Your task to perform on an android device: toggle wifi Image 0: 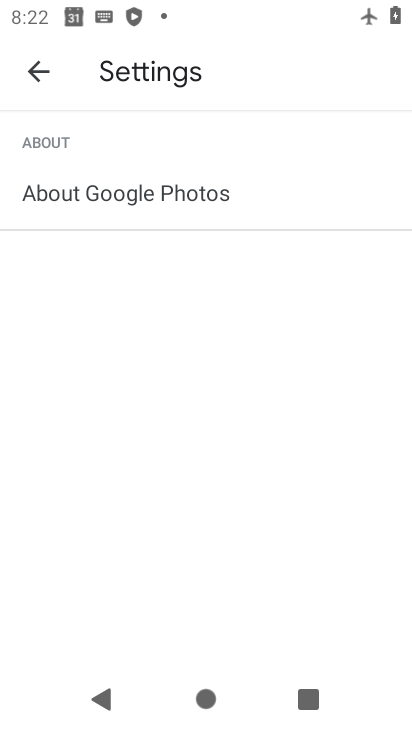
Step 0: press home button
Your task to perform on an android device: toggle wifi Image 1: 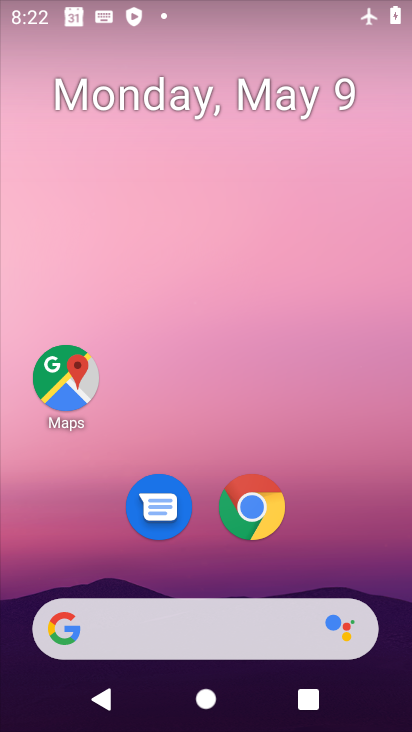
Step 1: drag from (218, 576) to (223, 2)
Your task to perform on an android device: toggle wifi Image 2: 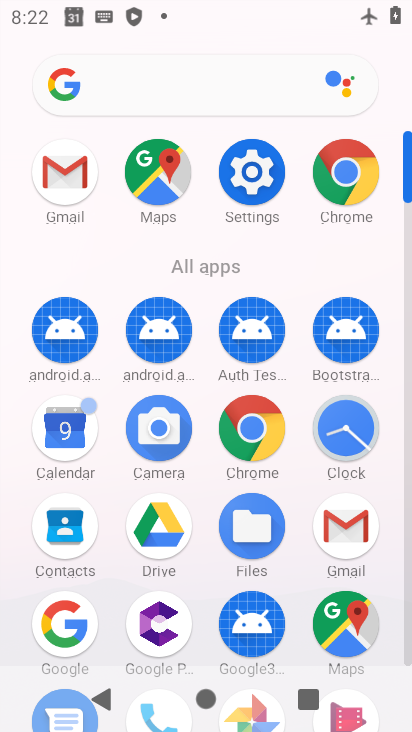
Step 2: click (251, 193)
Your task to perform on an android device: toggle wifi Image 3: 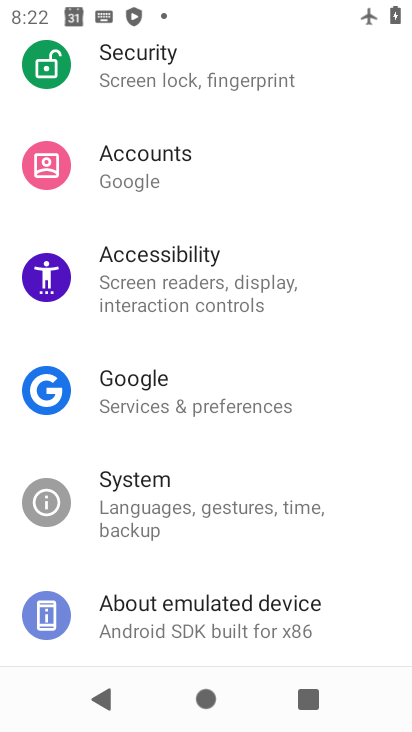
Step 3: drag from (282, 227) to (238, 551)
Your task to perform on an android device: toggle wifi Image 4: 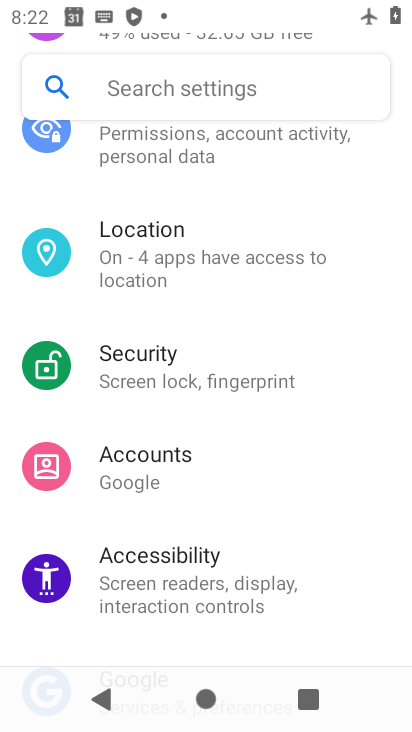
Step 4: drag from (276, 178) to (198, 655)
Your task to perform on an android device: toggle wifi Image 5: 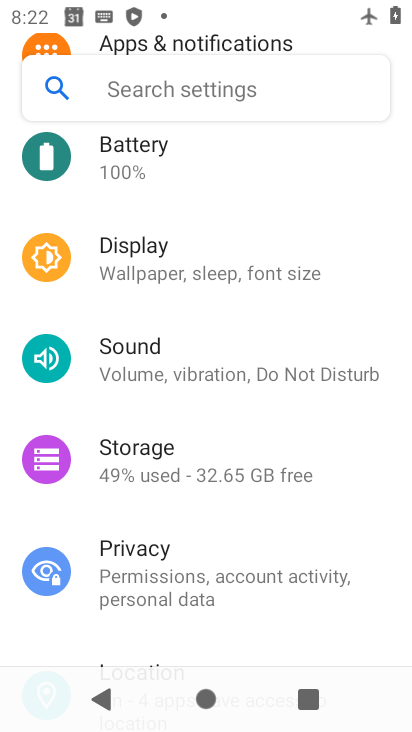
Step 5: drag from (276, 145) to (183, 669)
Your task to perform on an android device: toggle wifi Image 6: 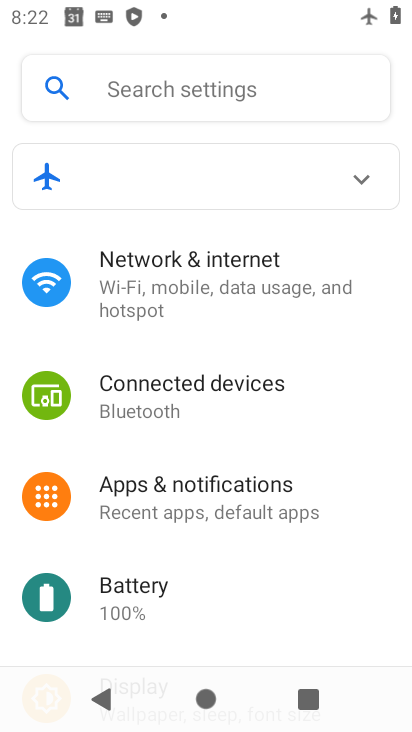
Step 6: click (244, 276)
Your task to perform on an android device: toggle wifi Image 7: 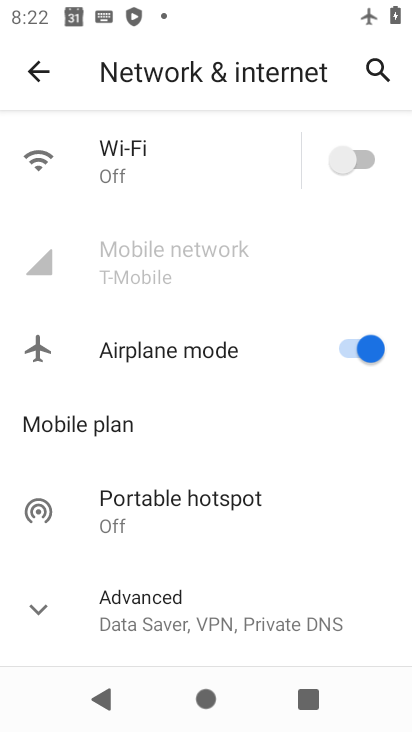
Step 7: click (195, 175)
Your task to perform on an android device: toggle wifi Image 8: 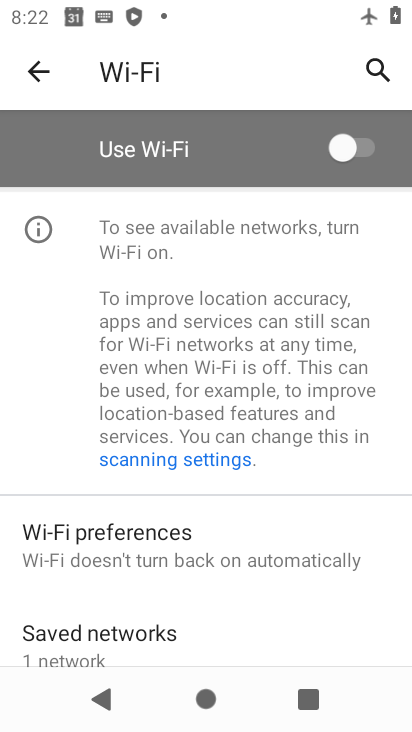
Step 8: click (354, 148)
Your task to perform on an android device: toggle wifi Image 9: 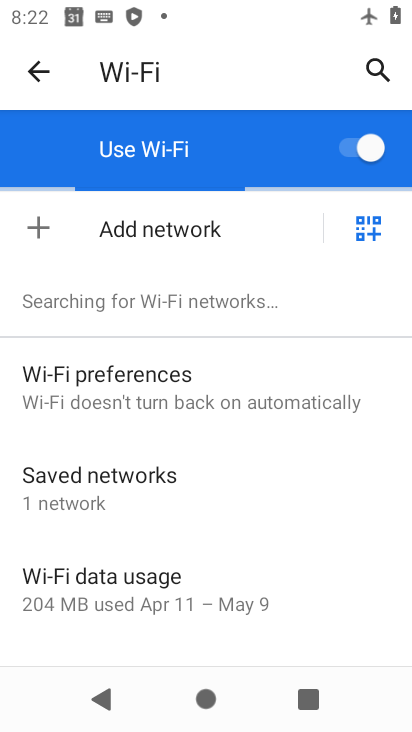
Step 9: task complete